Your task to perform on an android device: Show me the alarms in the clock app Image 0: 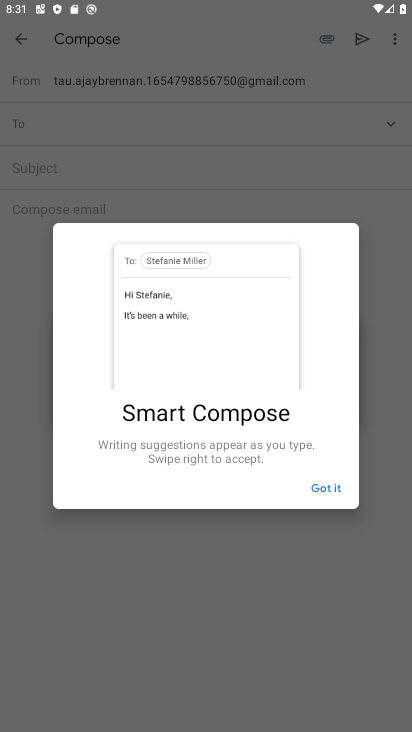
Step 0: press home button
Your task to perform on an android device: Show me the alarms in the clock app Image 1: 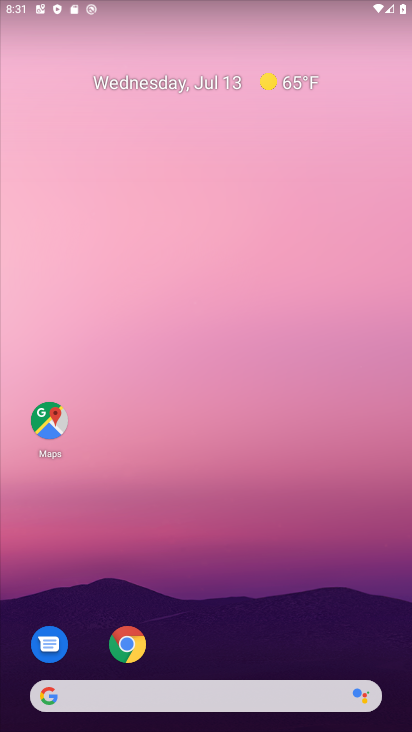
Step 1: drag from (305, 607) to (148, 26)
Your task to perform on an android device: Show me the alarms in the clock app Image 2: 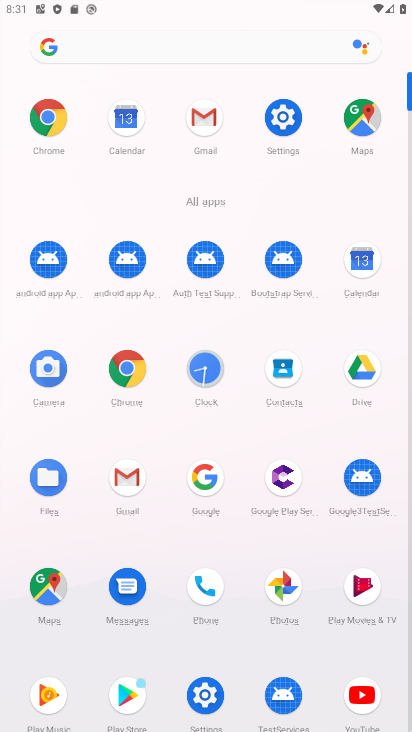
Step 2: click (219, 372)
Your task to perform on an android device: Show me the alarms in the clock app Image 3: 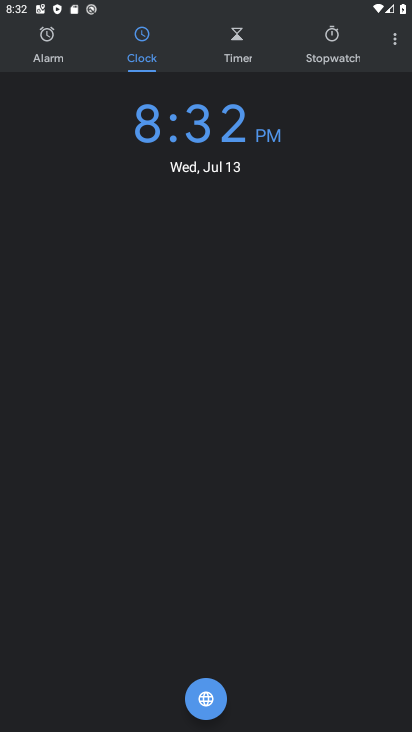
Step 3: click (38, 53)
Your task to perform on an android device: Show me the alarms in the clock app Image 4: 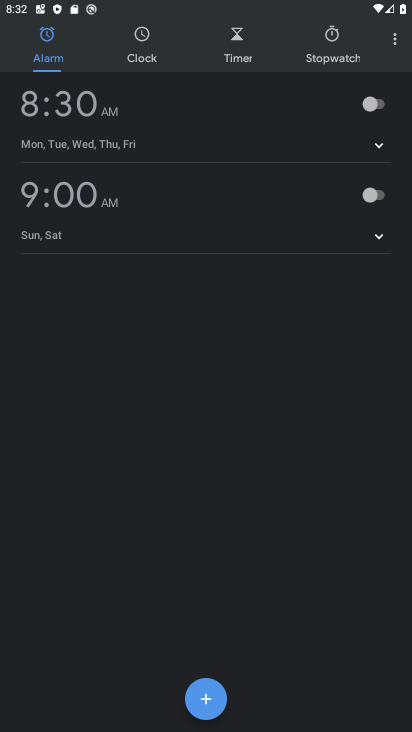
Step 4: task complete